Your task to perform on an android device: What's on my calendar tomorrow? Image 0: 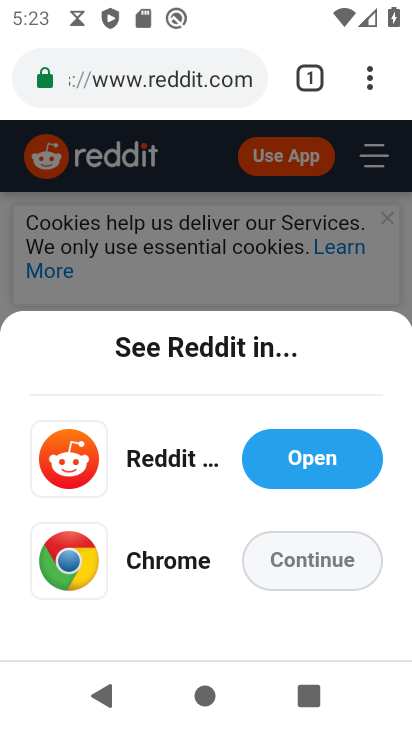
Step 0: press back button
Your task to perform on an android device: What's on my calendar tomorrow? Image 1: 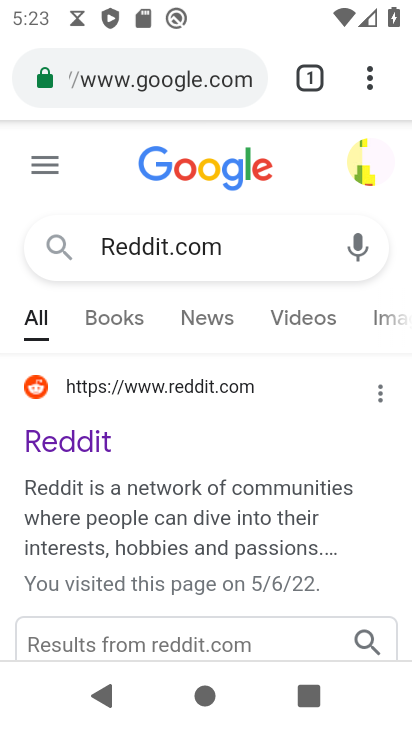
Step 1: press back button
Your task to perform on an android device: What's on my calendar tomorrow? Image 2: 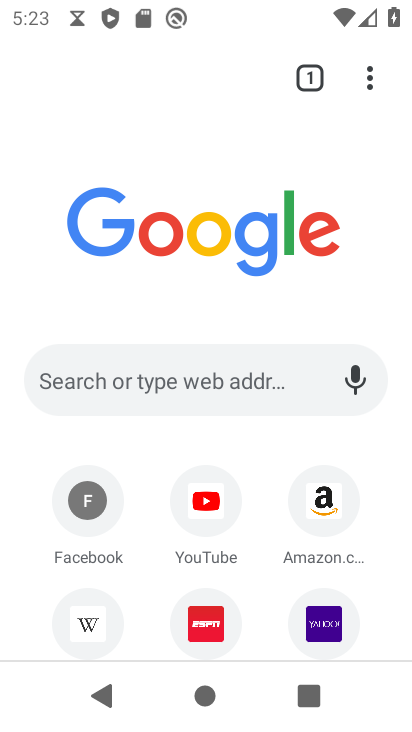
Step 2: press back button
Your task to perform on an android device: What's on my calendar tomorrow? Image 3: 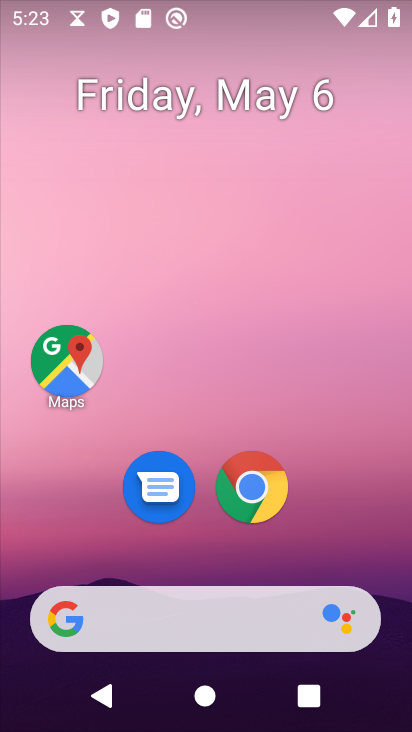
Step 3: drag from (332, 549) to (258, 6)
Your task to perform on an android device: What's on my calendar tomorrow? Image 4: 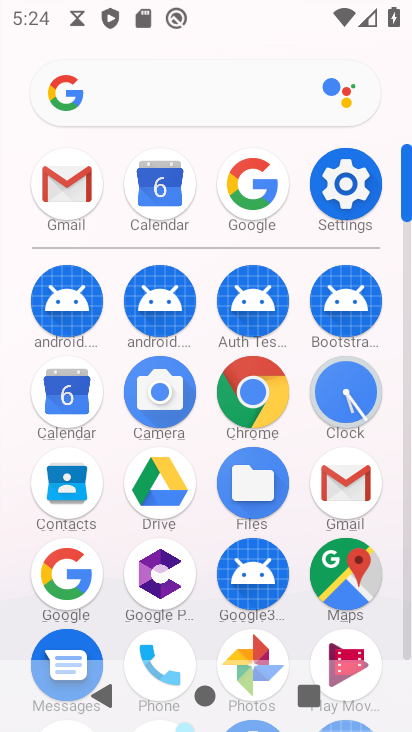
Step 4: click (158, 187)
Your task to perform on an android device: What's on my calendar tomorrow? Image 5: 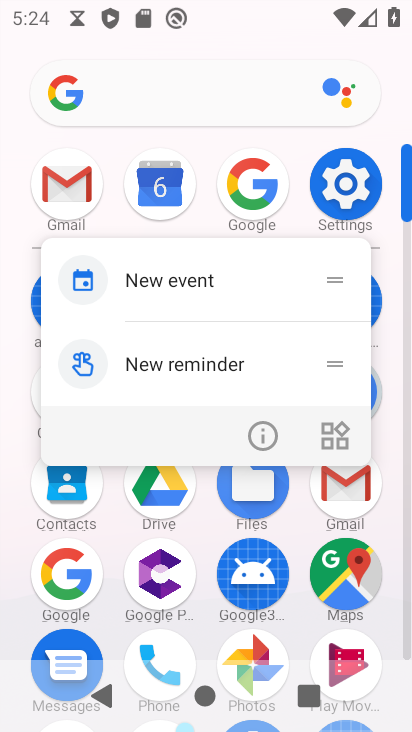
Step 5: click (158, 188)
Your task to perform on an android device: What's on my calendar tomorrow? Image 6: 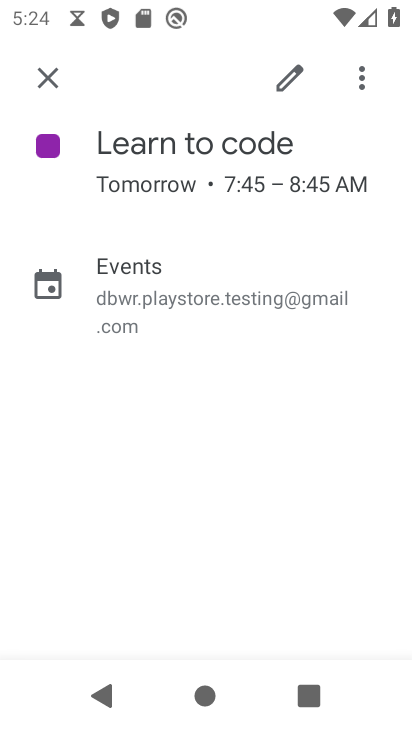
Step 6: task complete